Your task to perform on an android device: Open calendar and show me the fourth week of next month Image 0: 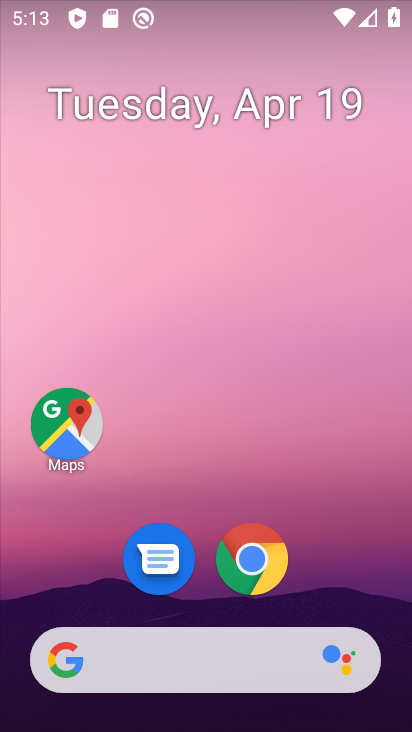
Step 0: drag from (362, 604) to (377, 296)
Your task to perform on an android device: Open calendar and show me the fourth week of next month Image 1: 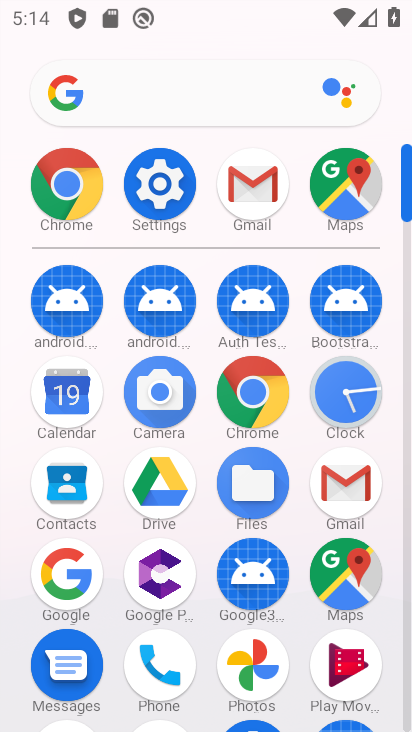
Step 1: click (61, 471)
Your task to perform on an android device: Open calendar and show me the fourth week of next month Image 2: 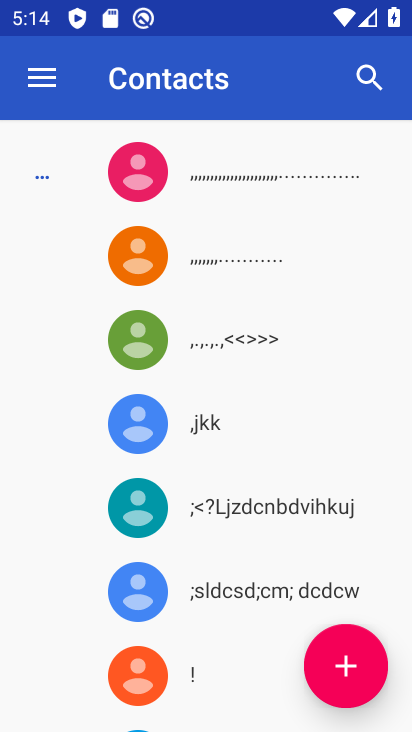
Step 2: press home button
Your task to perform on an android device: Open calendar and show me the fourth week of next month Image 3: 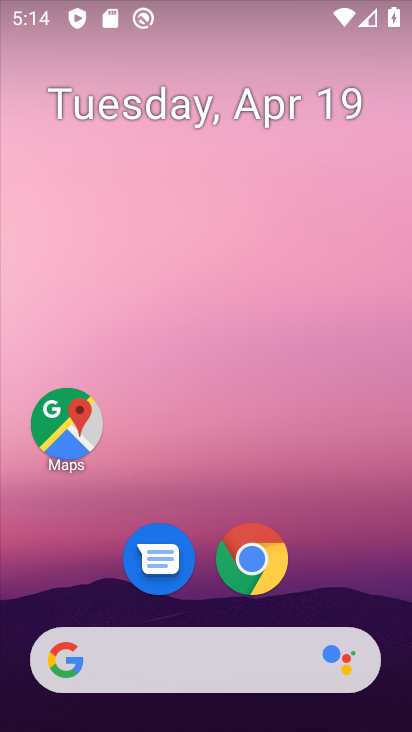
Step 3: drag from (356, 550) to (280, 101)
Your task to perform on an android device: Open calendar and show me the fourth week of next month Image 4: 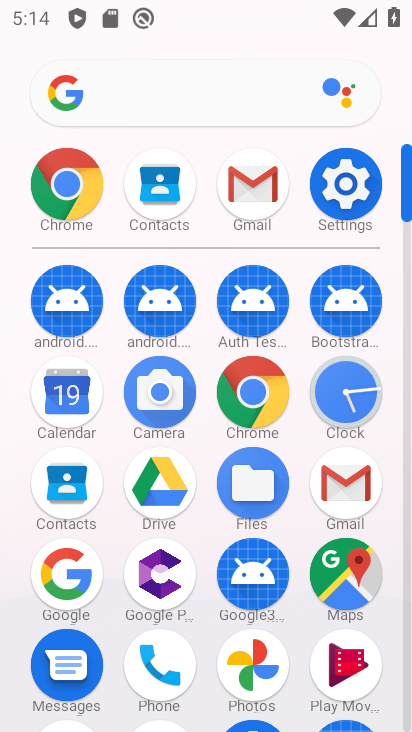
Step 4: click (73, 402)
Your task to perform on an android device: Open calendar and show me the fourth week of next month Image 5: 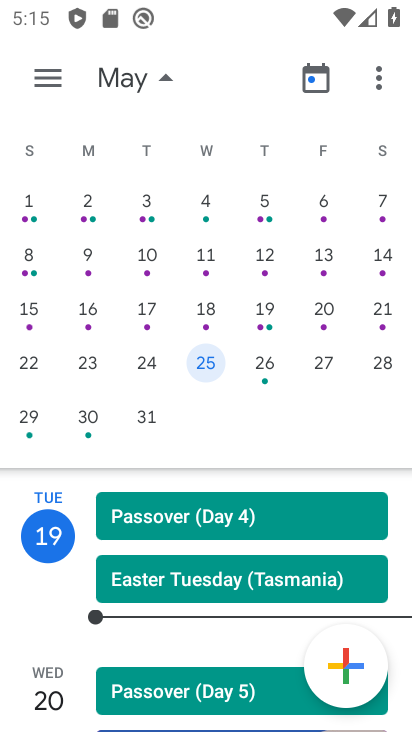
Step 5: task complete